Your task to perform on an android device: What's on my calendar tomorrow? Image 0: 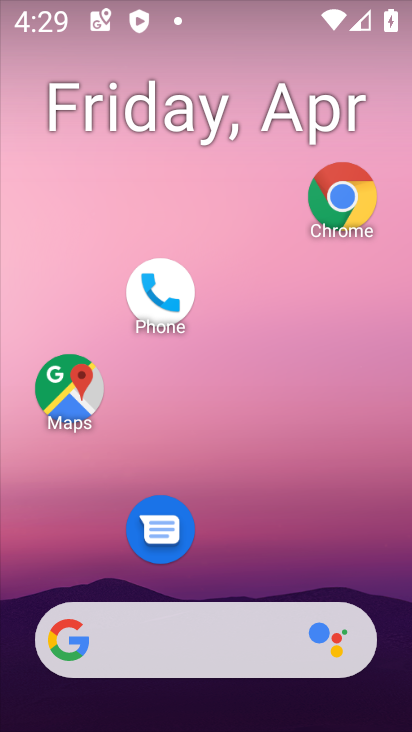
Step 0: drag from (251, 581) to (275, 66)
Your task to perform on an android device: What's on my calendar tomorrow? Image 1: 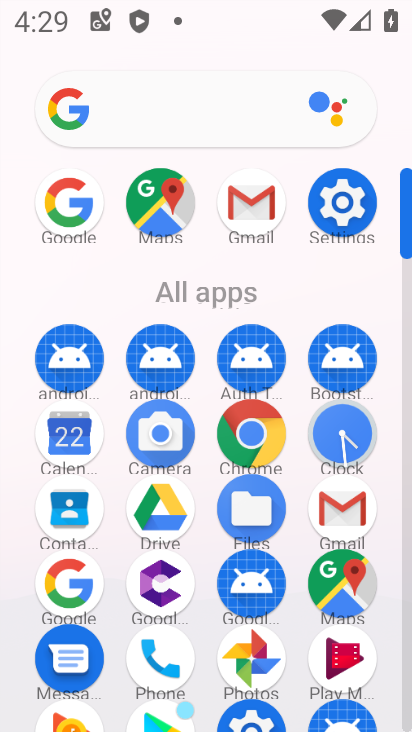
Step 1: click (345, 579)
Your task to perform on an android device: What's on my calendar tomorrow? Image 2: 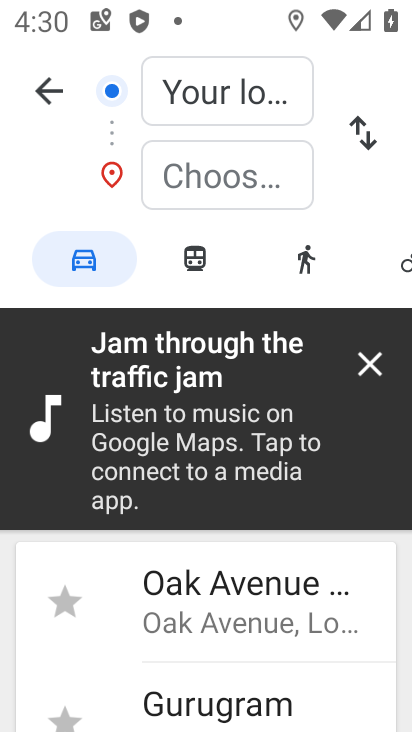
Step 2: click (362, 361)
Your task to perform on an android device: What's on my calendar tomorrow? Image 3: 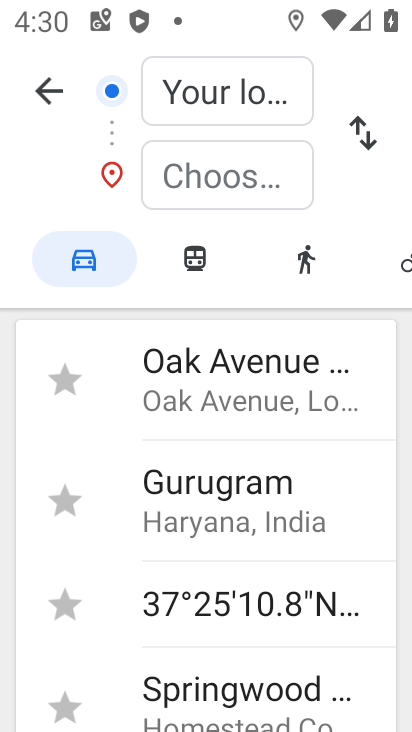
Step 3: press home button
Your task to perform on an android device: What's on my calendar tomorrow? Image 4: 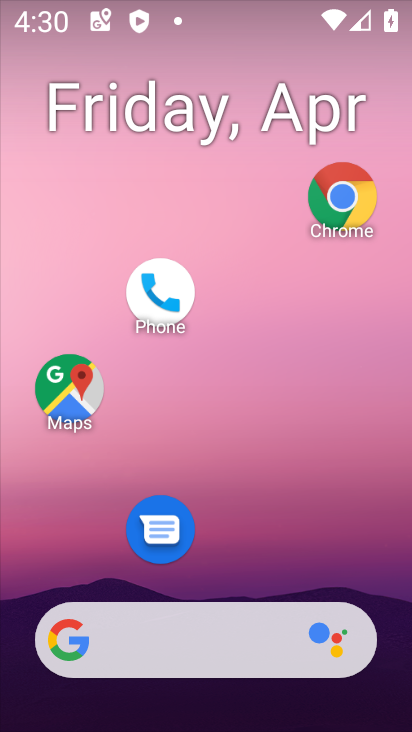
Step 4: drag from (229, 574) to (222, 66)
Your task to perform on an android device: What's on my calendar tomorrow? Image 5: 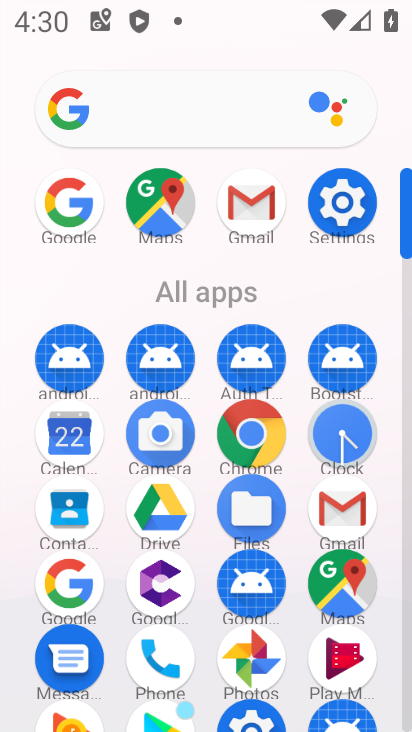
Step 5: click (69, 435)
Your task to perform on an android device: What's on my calendar tomorrow? Image 6: 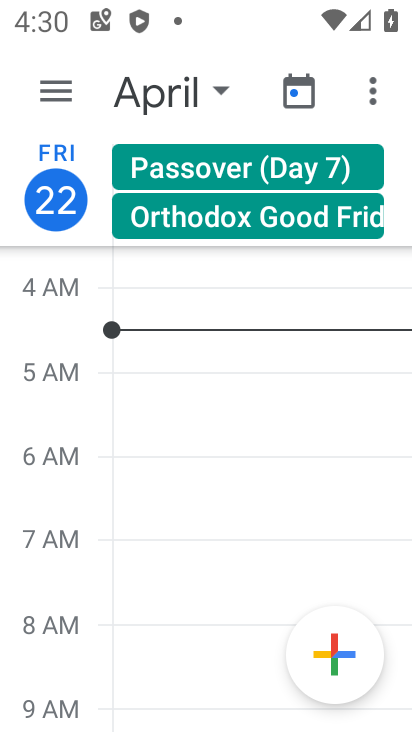
Step 6: click (97, 210)
Your task to perform on an android device: What's on my calendar tomorrow? Image 7: 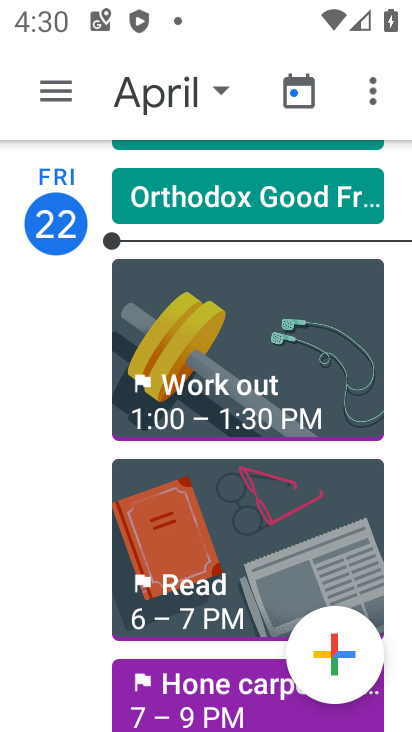
Step 7: drag from (61, 561) to (77, 190)
Your task to perform on an android device: What's on my calendar tomorrow? Image 8: 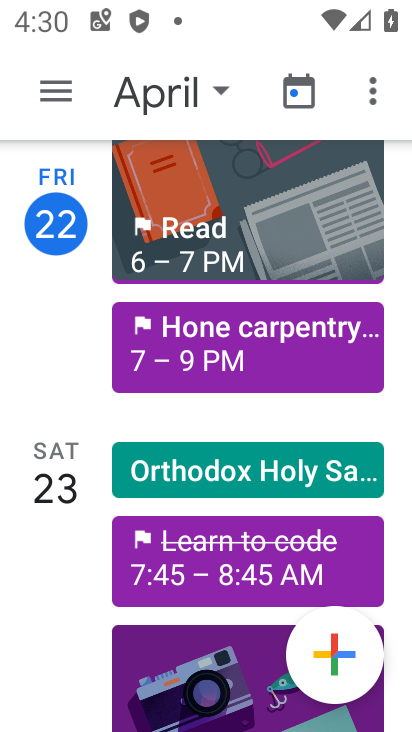
Step 8: click (62, 504)
Your task to perform on an android device: What's on my calendar tomorrow? Image 9: 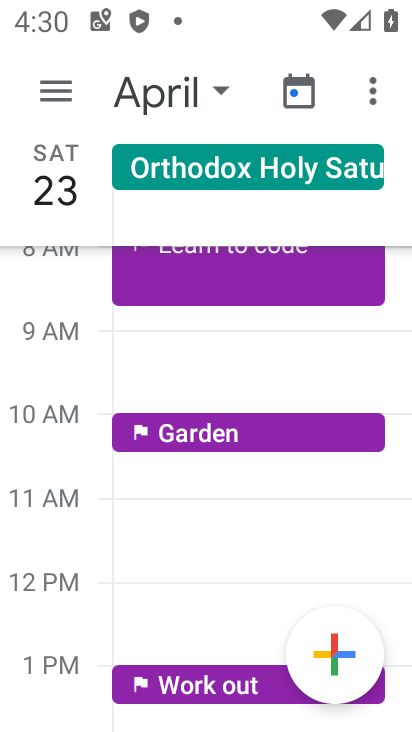
Step 9: task complete